Your task to perform on an android device: open wifi settings Image 0: 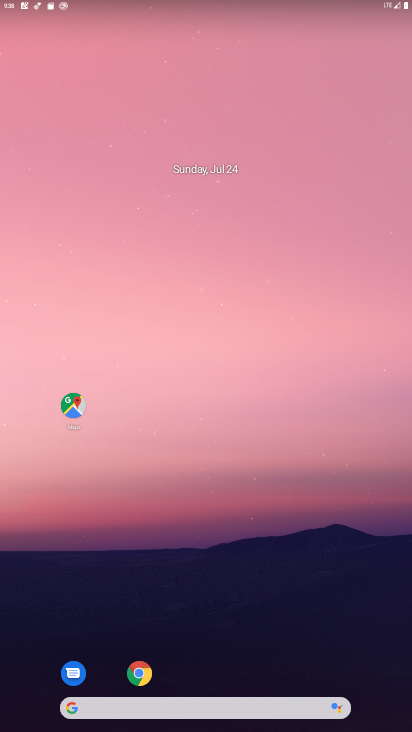
Step 0: drag from (204, 652) to (230, 172)
Your task to perform on an android device: open wifi settings Image 1: 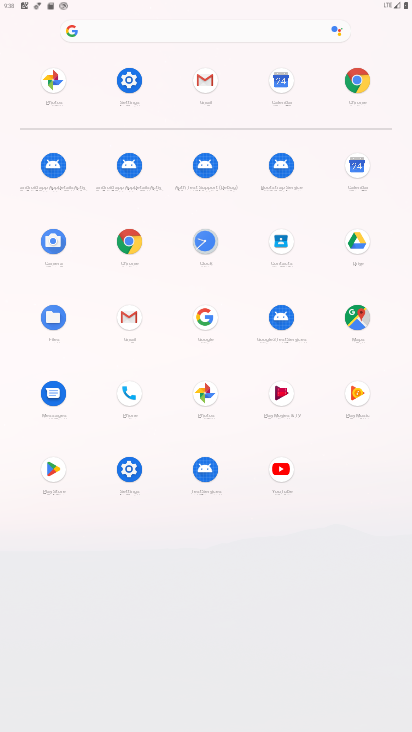
Step 1: click (127, 475)
Your task to perform on an android device: open wifi settings Image 2: 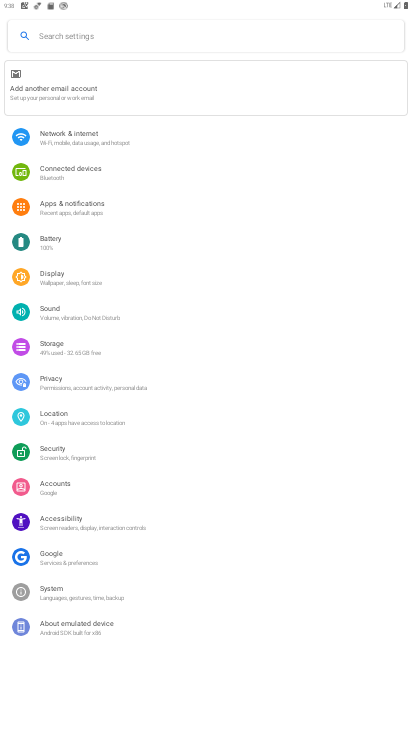
Step 2: click (68, 143)
Your task to perform on an android device: open wifi settings Image 3: 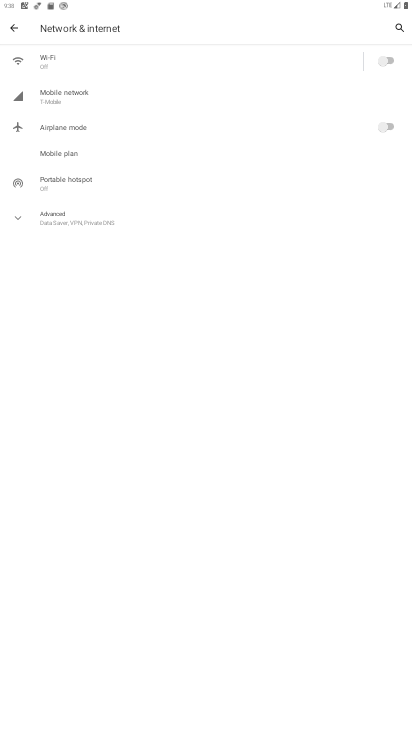
Step 3: click (148, 59)
Your task to perform on an android device: open wifi settings Image 4: 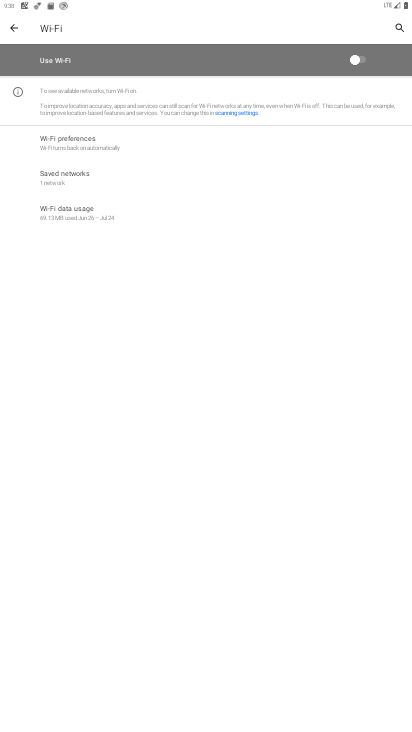
Step 4: task complete